Your task to perform on an android device: Open Google Maps and go to "Timeline" Image 0: 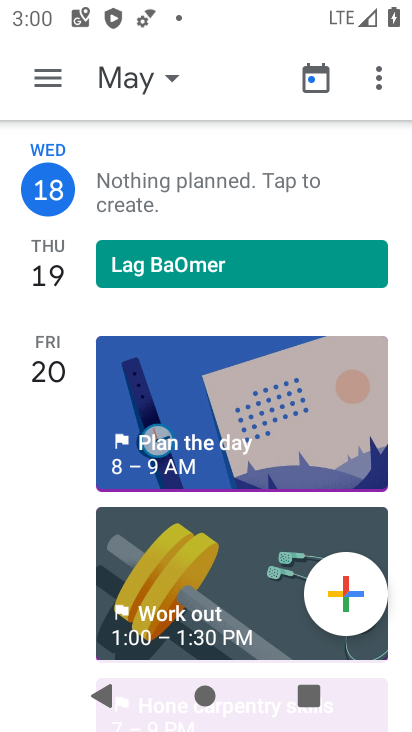
Step 0: press home button
Your task to perform on an android device: Open Google Maps and go to "Timeline" Image 1: 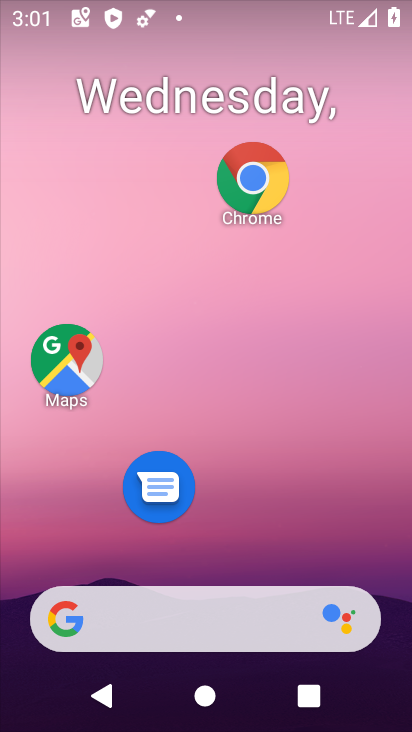
Step 1: click (83, 360)
Your task to perform on an android device: Open Google Maps and go to "Timeline" Image 2: 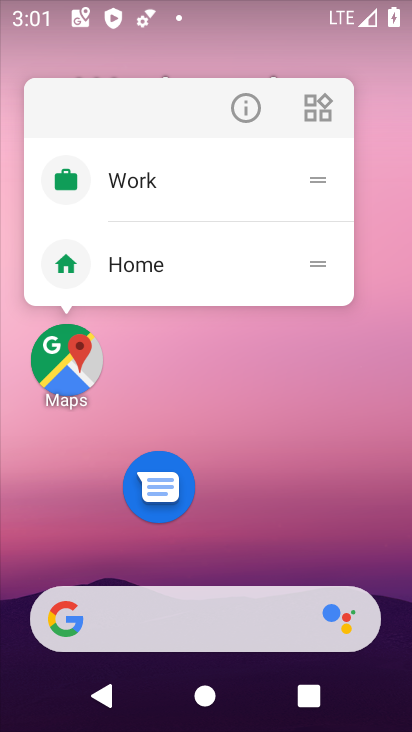
Step 2: click (54, 357)
Your task to perform on an android device: Open Google Maps and go to "Timeline" Image 3: 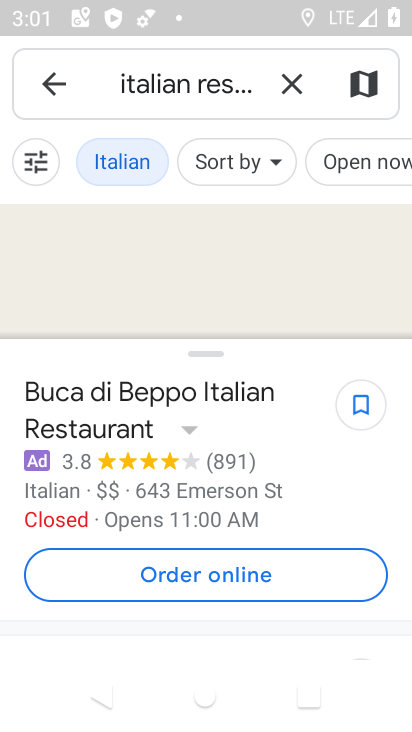
Step 3: click (53, 80)
Your task to perform on an android device: Open Google Maps and go to "Timeline" Image 4: 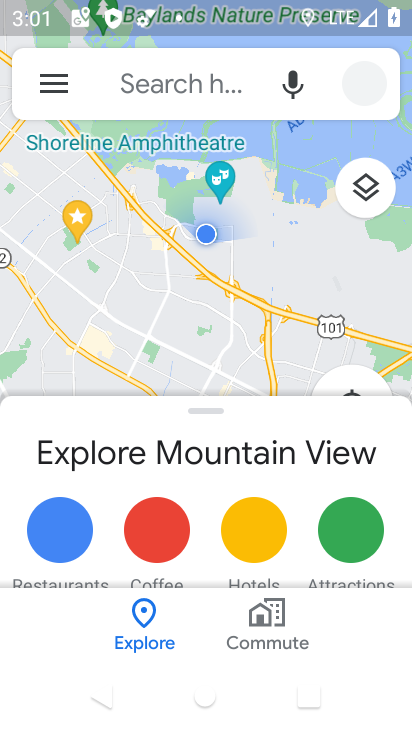
Step 4: click (48, 83)
Your task to perform on an android device: Open Google Maps and go to "Timeline" Image 5: 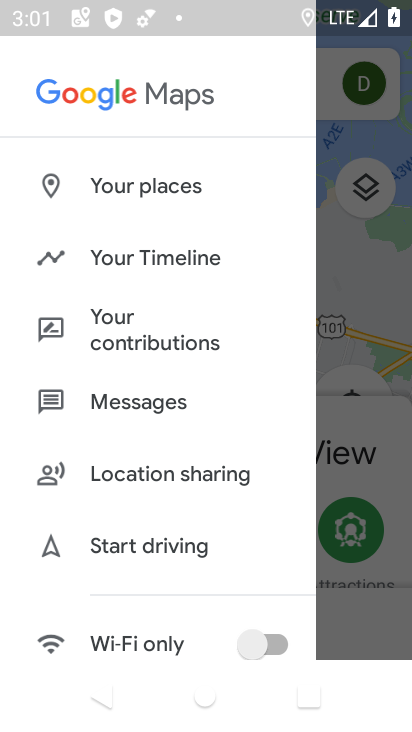
Step 5: click (156, 259)
Your task to perform on an android device: Open Google Maps and go to "Timeline" Image 6: 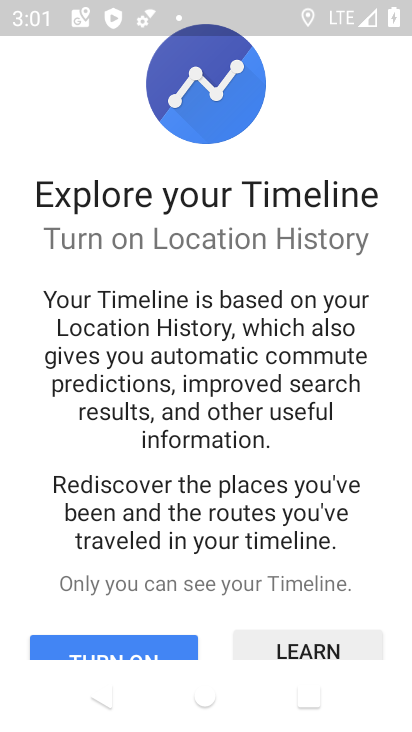
Step 6: drag from (250, 602) to (333, 306)
Your task to perform on an android device: Open Google Maps and go to "Timeline" Image 7: 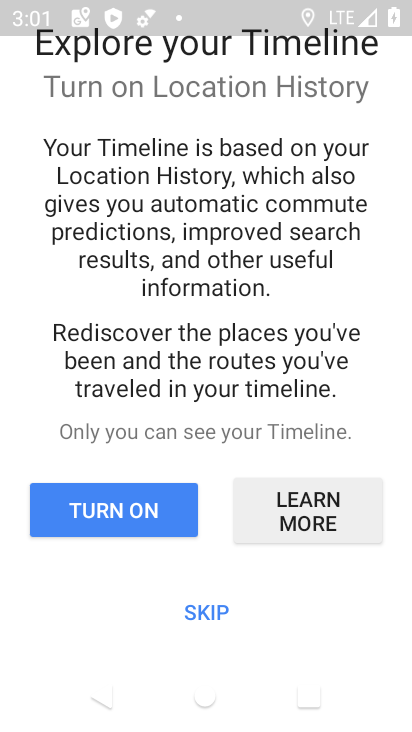
Step 7: click (213, 609)
Your task to perform on an android device: Open Google Maps and go to "Timeline" Image 8: 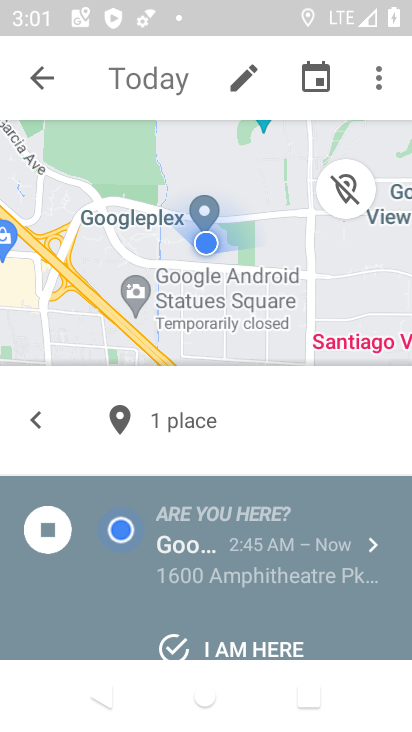
Step 8: task complete